Your task to perform on an android device: What time is it in London? Image 0: 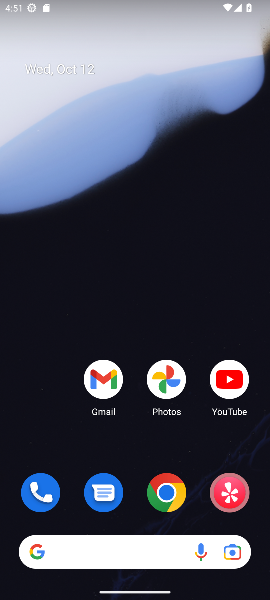
Step 0: click (163, 490)
Your task to perform on an android device: What time is it in London? Image 1: 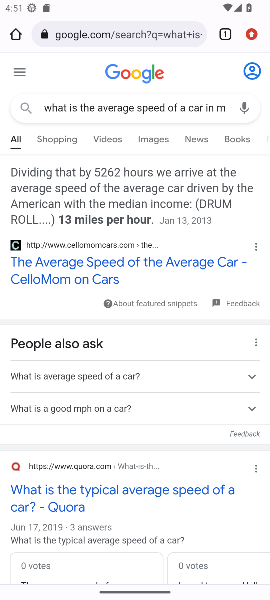
Step 1: click (96, 109)
Your task to perform on an android device: What time is it in London? Image 2: 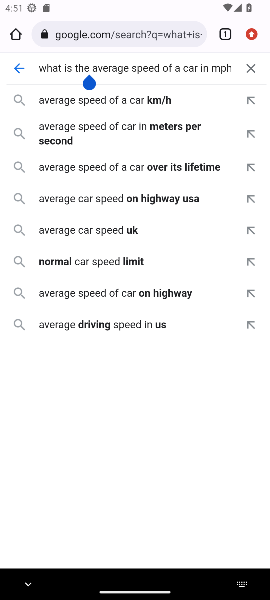
Step 2: click (248, 68)
Your task to perform on an android device: What time is it in London? Image 3: 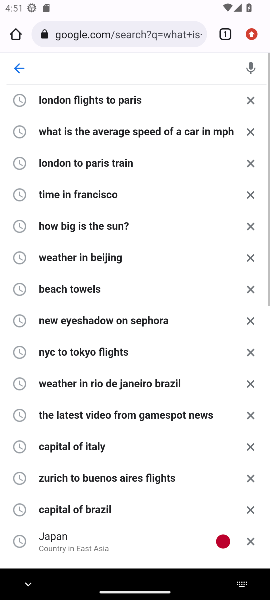
Step 3: type "time in london "
Your task to perform on an android device: What time is it in London? Image 4: 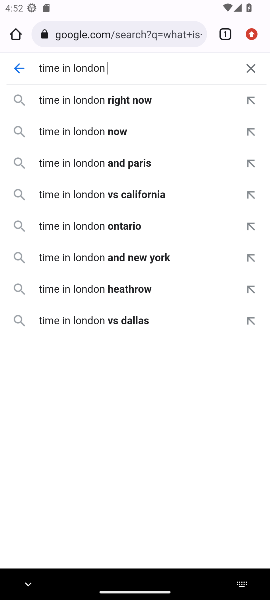
Step 4: click (64, 132)
Your task to perform on an android device: What time is it in London? Image 5: 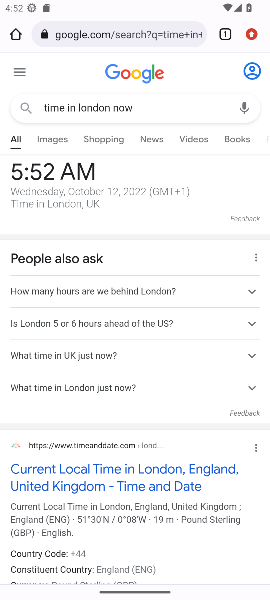
Step 5: task complete